Your task to perform on an android device: Open CNN.com Image 0: 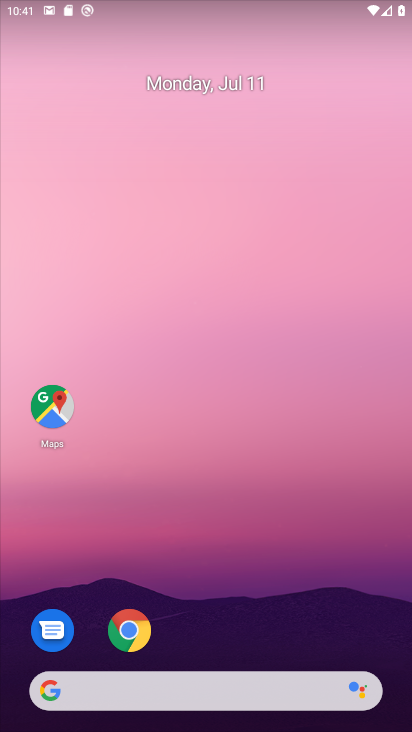
Step 0: drag from (211, 657) to (247, 100)
Your task to perform on an android device: Open CNN.com Image 1: 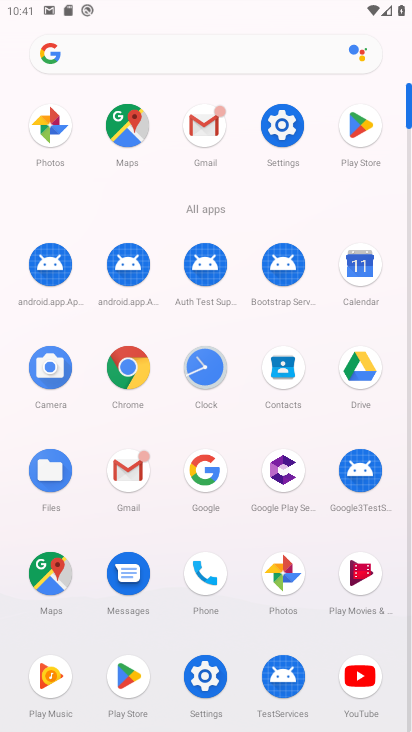
Step 1: click (125, 370)
Your task to perform on an android device: Open CNN.com Image 2: 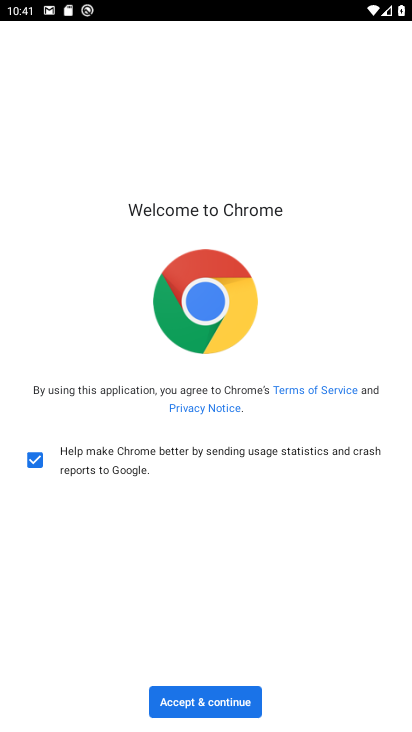
Step 2: click (194, 707)
Your task to perform on an android device: Open CNN.com Image 3: 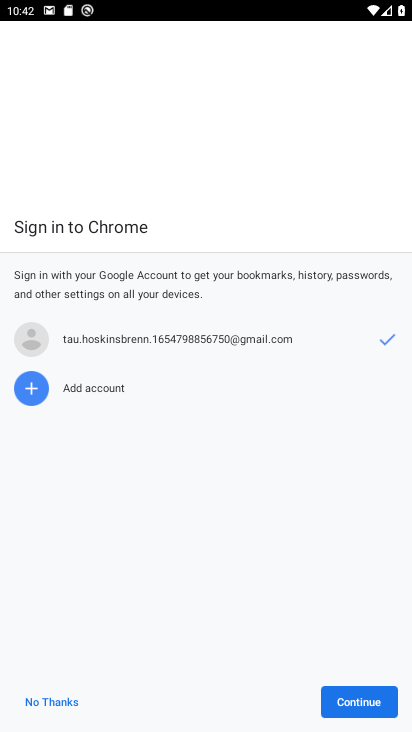
Step 3: click (352, 694)
Your task to perform on an android device: Open CNN.com Image 4: 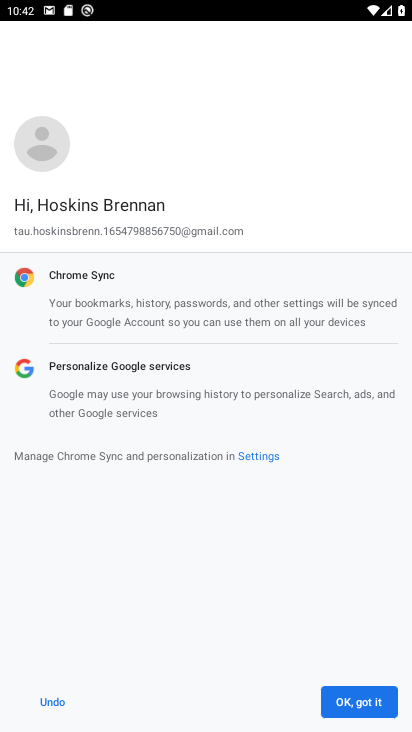
Step 4: click (350, 711)
Your task to perform on an android device: Open CNN.com Image 5: 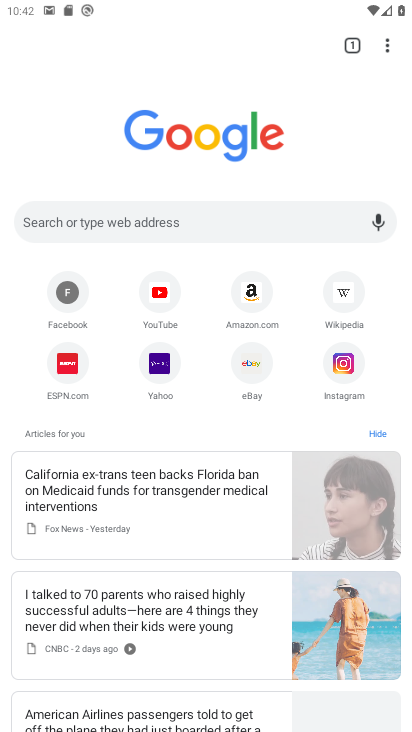
Step 5: click (210, 224)
Your task to perform on an android device: Open CNN.com Image 6: 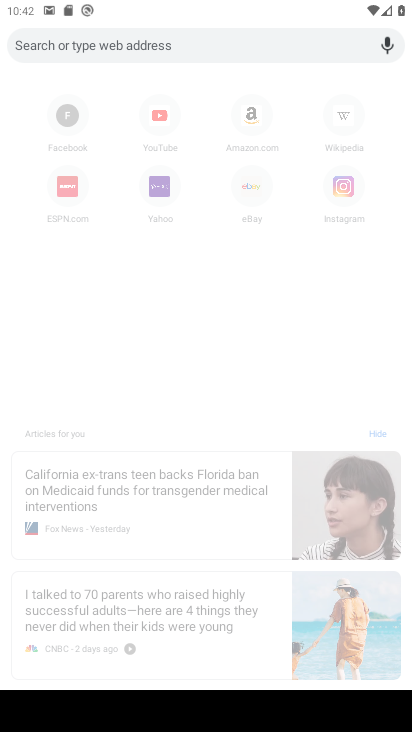
Step 6: type "cnn.com"
Your task to perform on an android device: Open CNN.com Image 7: 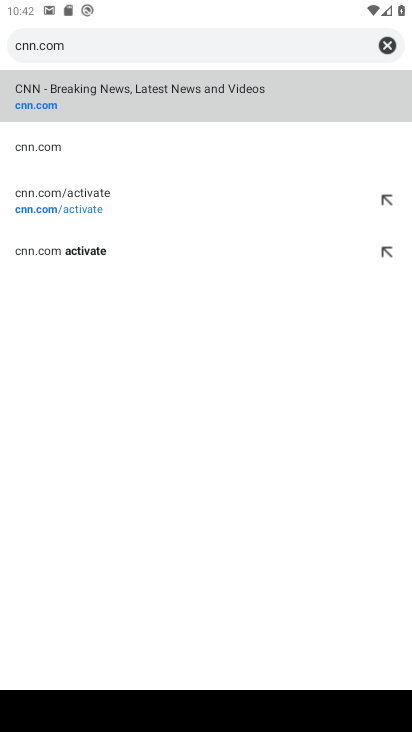
Step 7: click (109, 209)
Your task to perform on an android device: Open CNN.com Image 8: 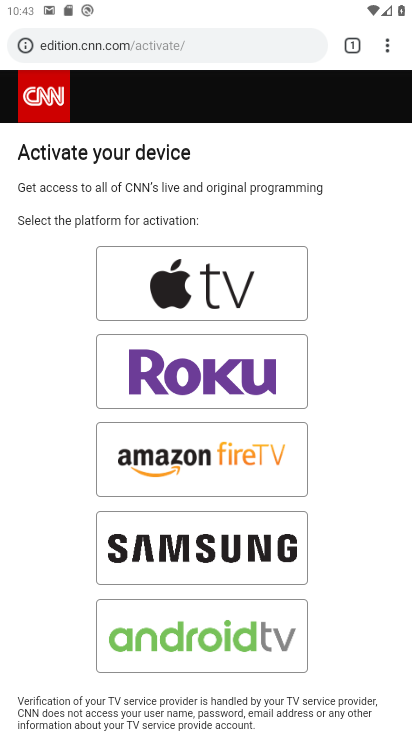
Step 8: task complete